Your task to perform on an android device: Go to ESPN.com Image 0: 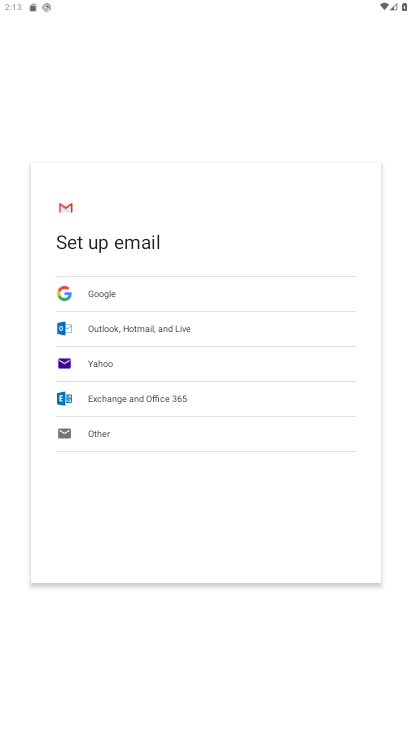
Step 0: press home button
Your task to perform on an android device: Go to ESPN.com Image 1: 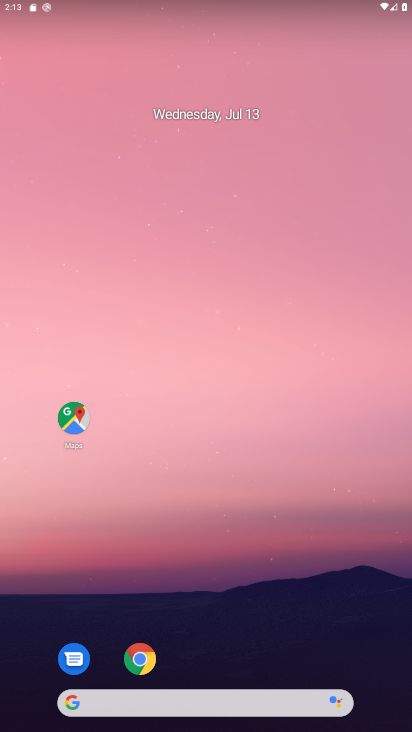
Step 1: click (131, 662)
Your task to perform on an android device: Go to ESPN.com Image 2: 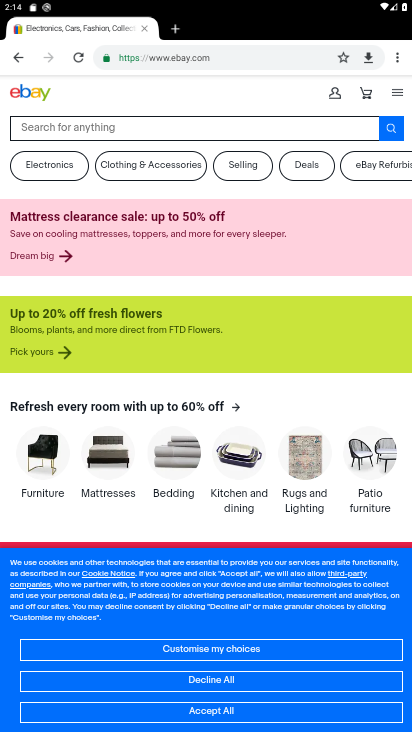
Step 2: click (184, 55)
Your task to perform on an android device: Go to ESPN.com Image 3: 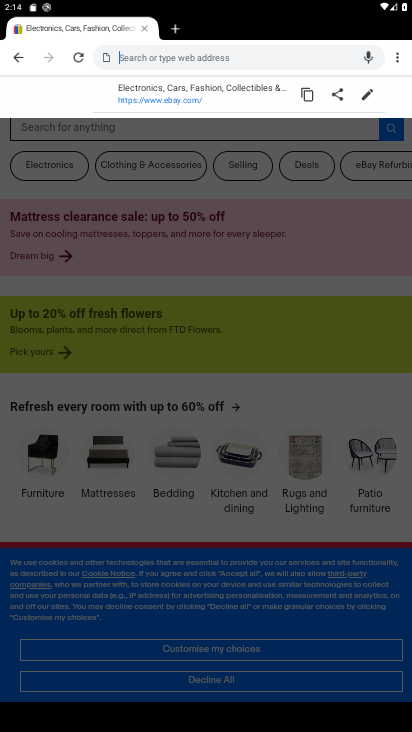
Step 3: type "ESPN.com"
Your task to perform on an android device: Go to ESPN.com Image 4: 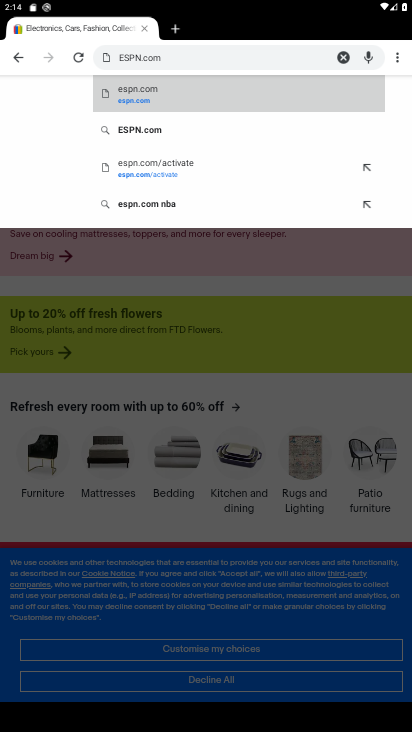
Step 4: click (116, 99)
Your task to perform on an android device: Go to ESPN.com Image 5: 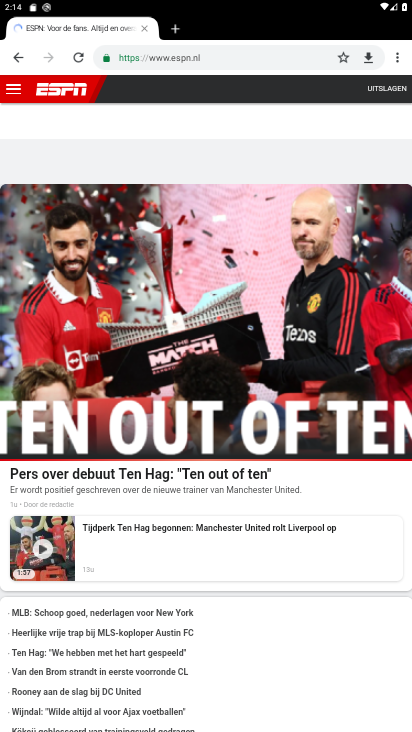
Step 5: task complete